Your task to perform on an android device: open app "Instagram" (install if not already installed) Image 0: 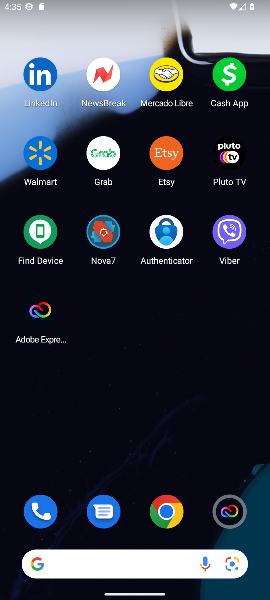
Step 0: drag from (121, 550) to (118, 104)
Your task to perform on an android device: open app "Instagram" (install if not already installed) Image 1: 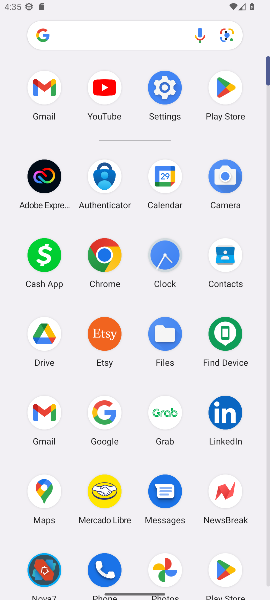
Step 1: click (237, 89)
Your task to perform on an android device: open app "Instagram" (install if not already installed) Image 2: 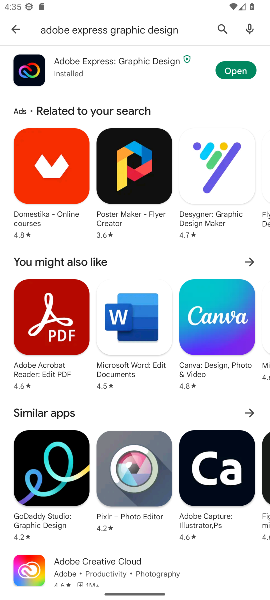
Step 2: click (15, 29)
Your task to perform on an android device: open app "Instagram" (install if not already installed) Image 3: 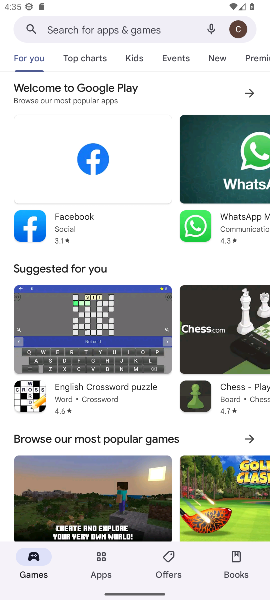
Step 3: click (94, 25)
Your task to perform on an android device: open app "Instagram" (install if not already installed) Image 4: 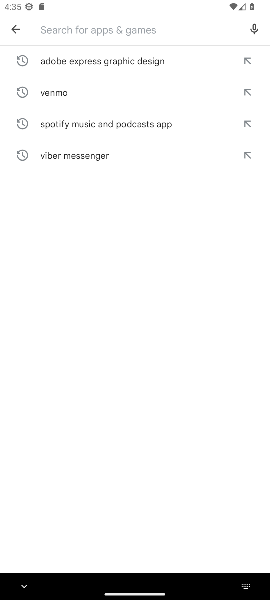
Step 4: click (69, 576)
Your task to perform on an android device: open app "Instagram" (install if not already installed) Image 5: 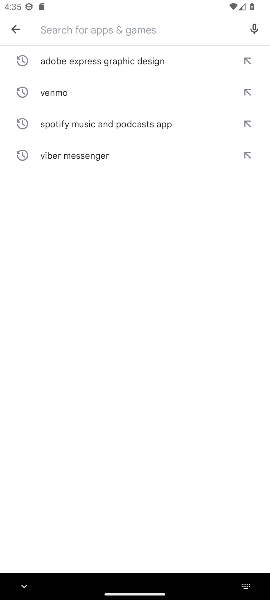
Step 5: click (69, 30)
Your task to perform on an android device: open app "Instagram" (install if not already installed) Image 6: 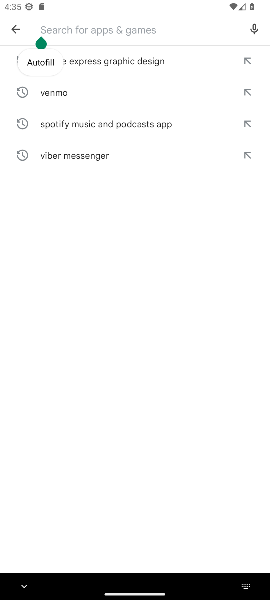
Step 6: type "Instagram"
Your task to perform on an android device: open app "Instagram" (install if not already installed) Image 7: 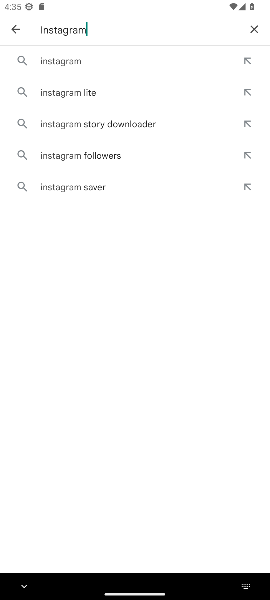
Step 7: click (71, 62)
Your task to perform on an android device: open app "Instagram" (install if not already installed) Image 8: 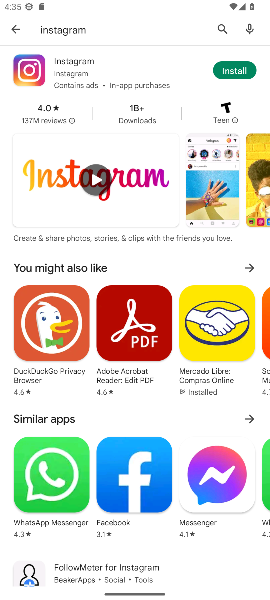
Step 8: click (241, 72)
Your task to perform on an android device: open app "Instagram" (install if not already installed) Image 9: 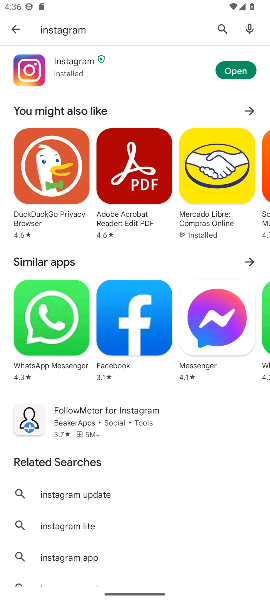
Step 9: click (230, 65)
Your task to perform on an android device: open app "Instagram" (install if not already installed) Image 10: 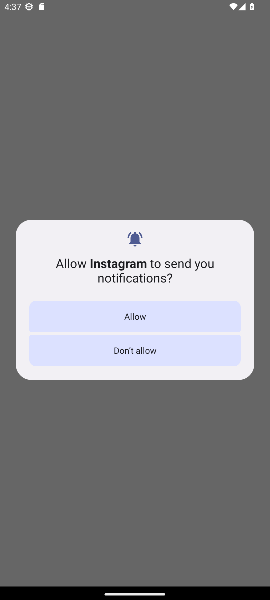
Step 10: task complete